Your task to perform on an android device: Open network settings Image 0: 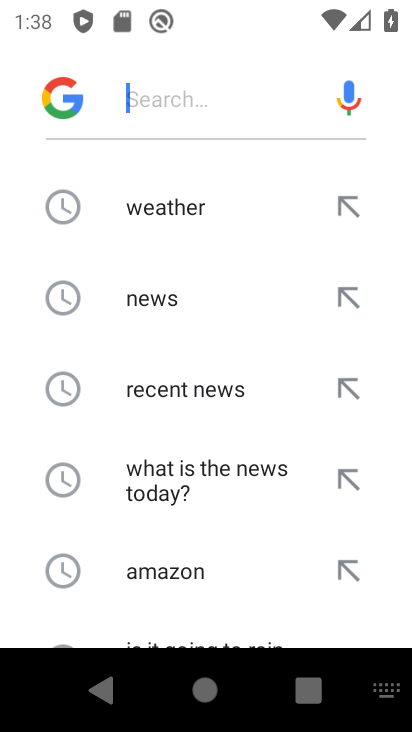
Step 0: press back button
Your task to perform on an android device: Open network settings Image 1: 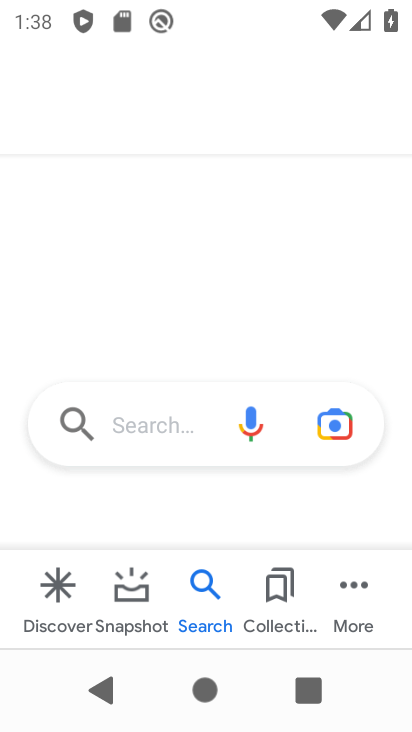
Step 1: press back button
Your task to perform on an android device: Open network settings Image 2: 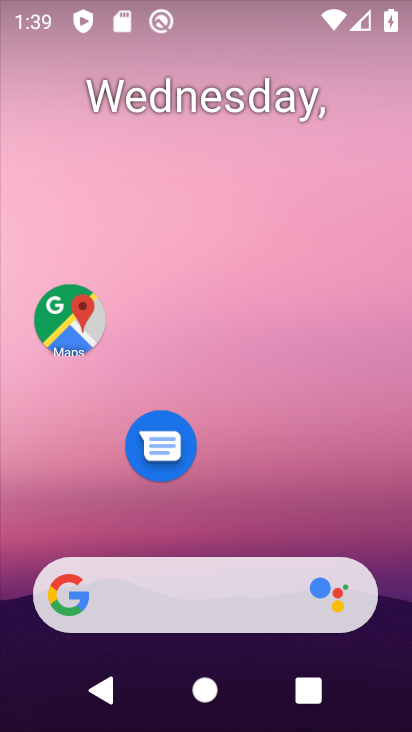
Step 2: drag from (287, 480) to (244, 45)
Your task to perform on an android device: Open network settings Image 3: 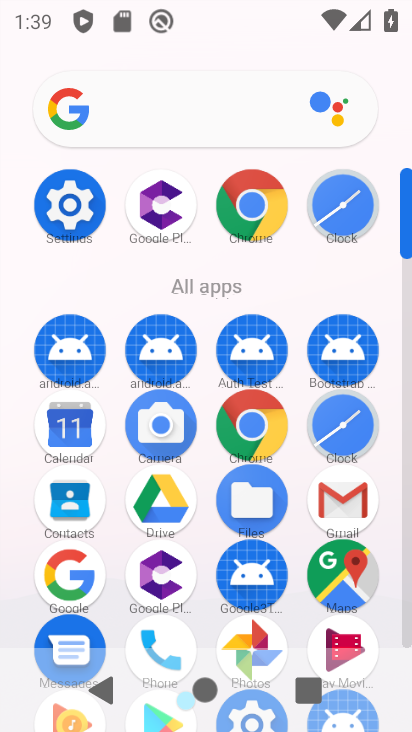
Step 3: click (68, 241)
Your task to perform on an android device: Open network settings Image 4: 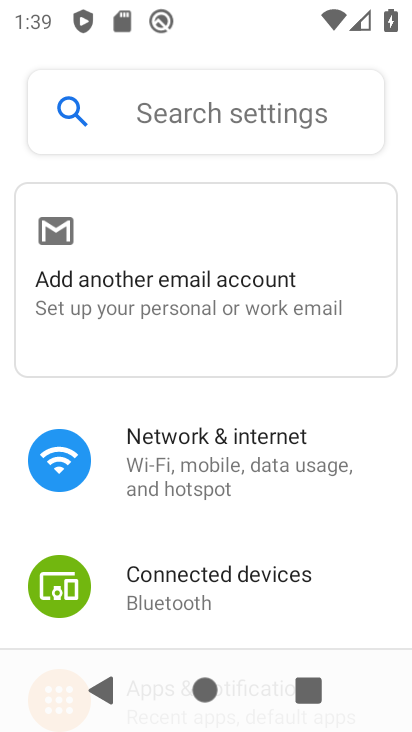
Step 4: click (188, 445)
Your task to perform on an android device: Open network settings Image 5: 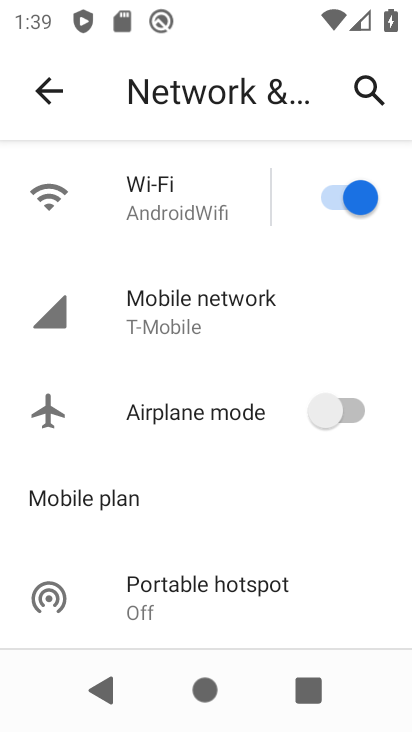
Step 5: task complete